Your task to perform on an android device: Open my contact list Image 0: 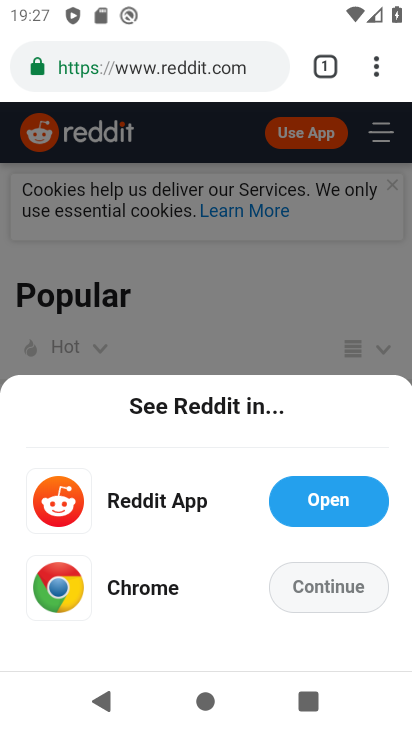
Step 0: press home button
Your task to perform on an android device: Open my contact list Image 1: 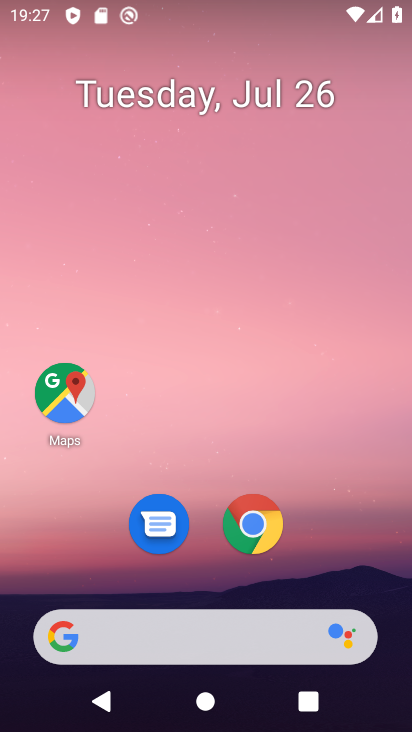
Step 1: drag from (226, 638) to (341, 68)
Your task to perform on an android device: Open my contact list Image 2: 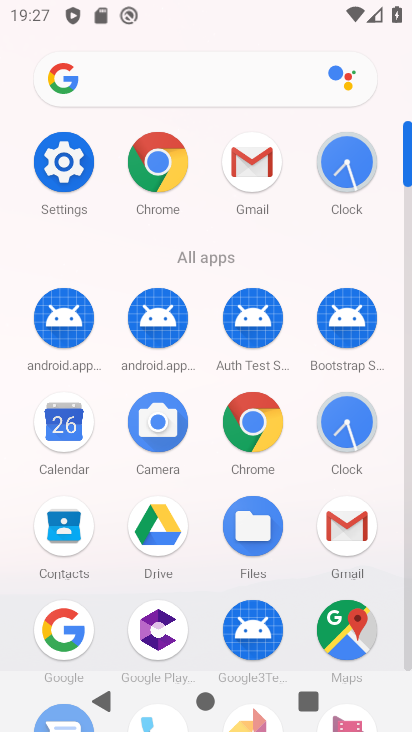
Step 2: drag from (245, 414) to (354, 204)
Your task to perform on an android device: Open my contact list Image 3: 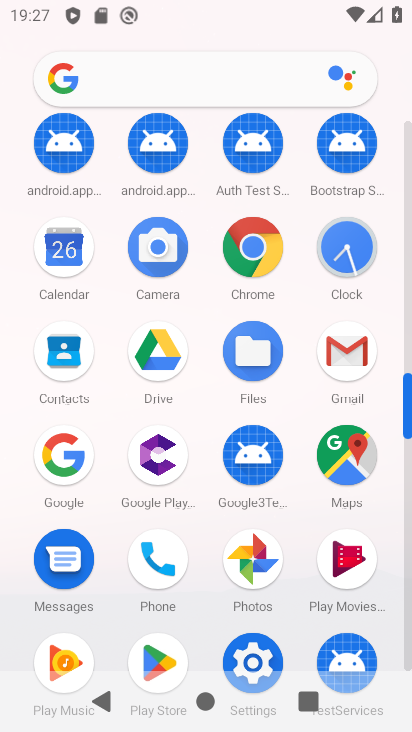
Step 3: click (63, 348)
Your task to perform on an android device: Open my contact list Image 4: 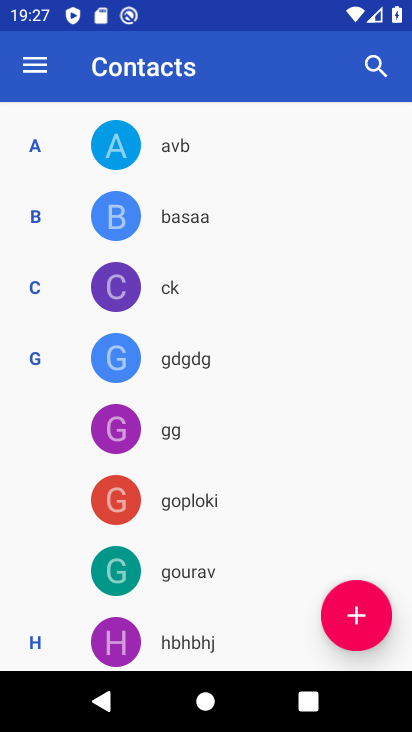
Step 4: task complete